Your task to perform on an android device: Search for seafood restaurants on Google Maps Image 0: 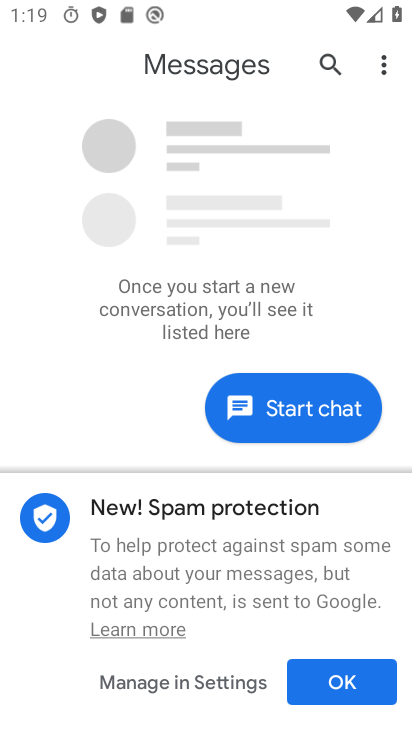
Step 0: press home button
Your task to perform on an android device: Search for seafood restaurants on Google Maps Image 1: 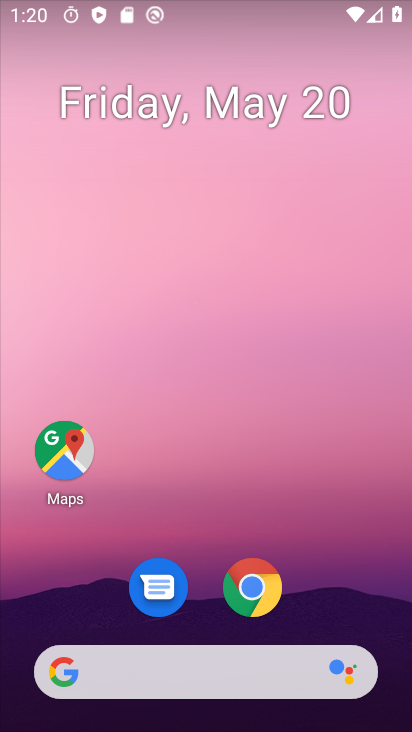
Step 1: click (58, 462)
Your task to perform on an android device: Search for seafood restaurants on Google Maps Image 2: 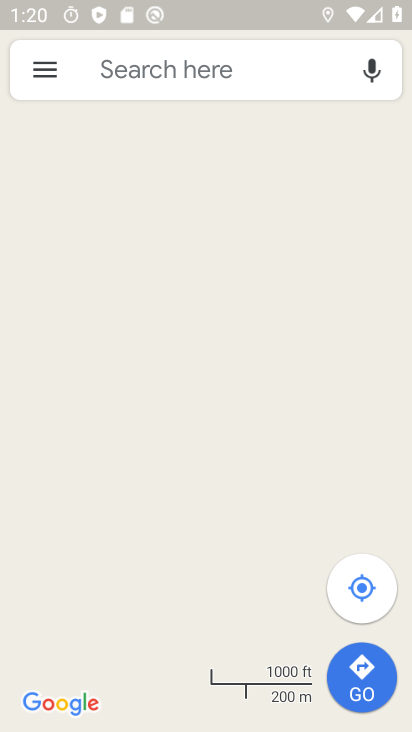
Step 2: click (220, 66)
Your task to perform on an android device: Search for seafood restaurants on Google Maps Image 3: 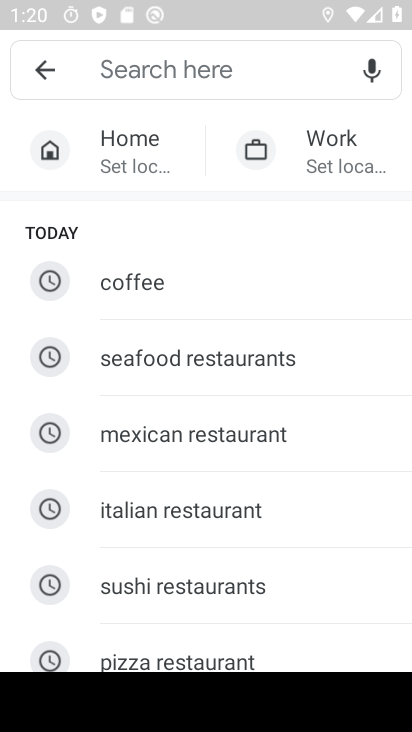
Step 3: type "seafood rest"
Your task to perform on an android device: Search for seafood restaurants on Google Maps Image 4: 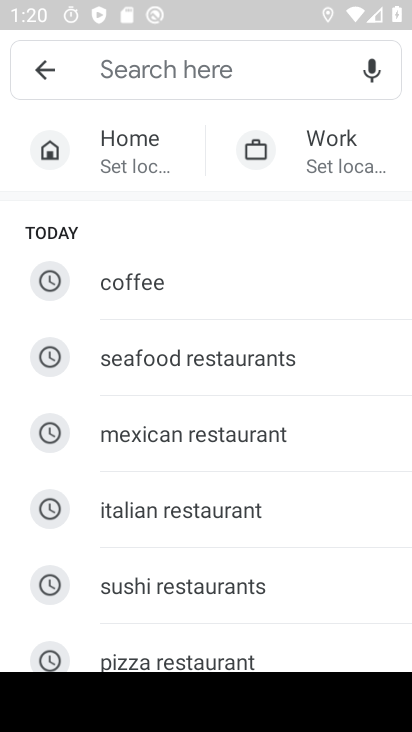
Step 4: click (242, 361)
Your task to perform on an android device: Search for seafood restaurants on Google Maps Image 5: 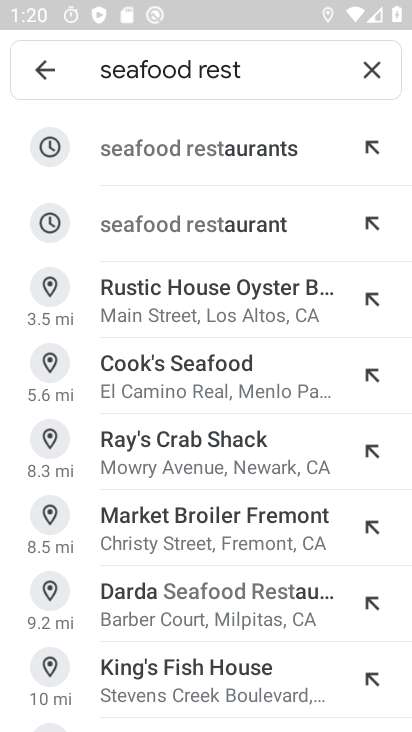
Step 5: drag from (368, 179) to (260, 163)
Your task to perform on an android device: Search for seafood restaurants on Google Maps Image 6: 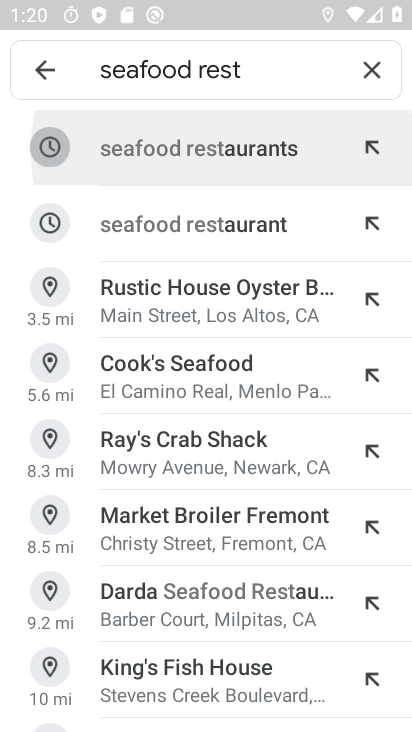
Step 6: click (254, 154)
Your task to perform on an android device: Search for seafood restaurants on Google Maps Image 7: 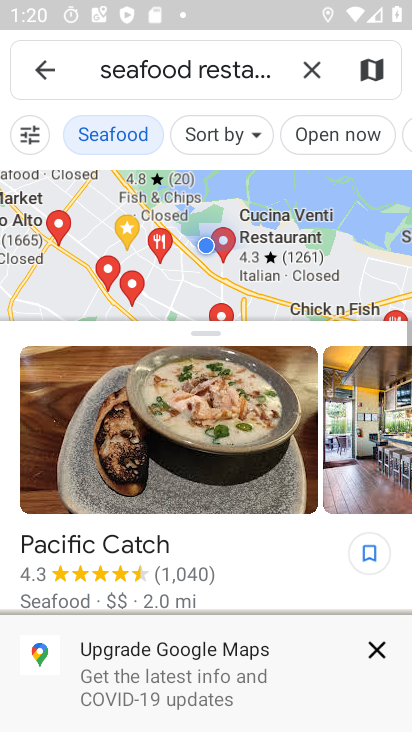
Step 7: task complete